Your task to perform on an android device: Open the stopwatch Image 0: 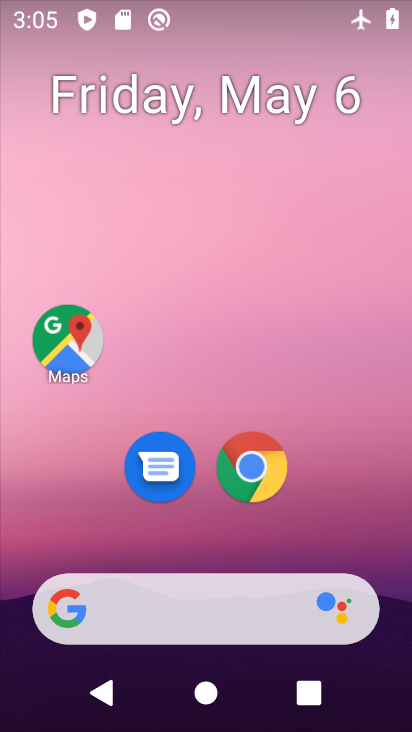
Step 0: click (402, 263)
Your task to perform on an android device: Open the stopwatch Image 1: 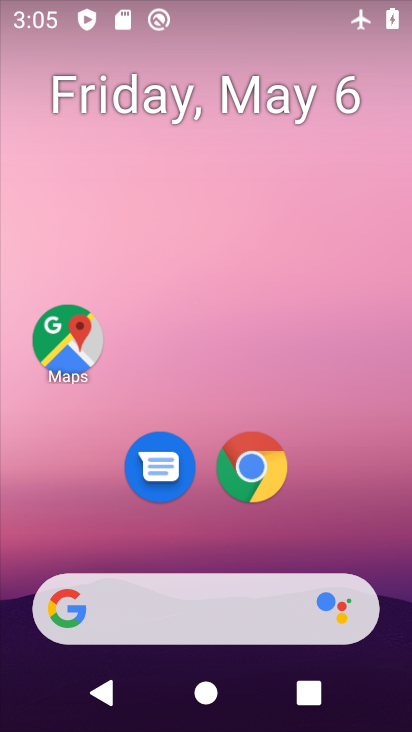
Step 1: drag from (396, 655) to (361, 147)
Your task to perform on an android device: Open the stopwatch Image 2: 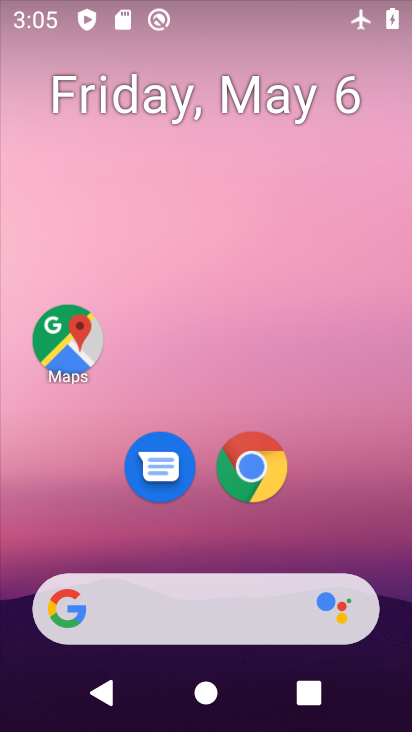
Step 2: drag from (400, 487) to (374, 302)
Your task to perform on an android device: Open the stopwatch Image 3: 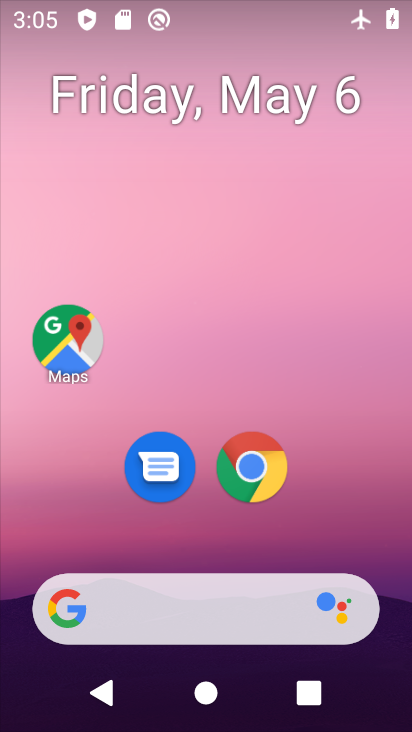
Step 3: drag from (391, 619) to (355, 322)
Your task to perform on an android device: Open the stopwatch Image 4: 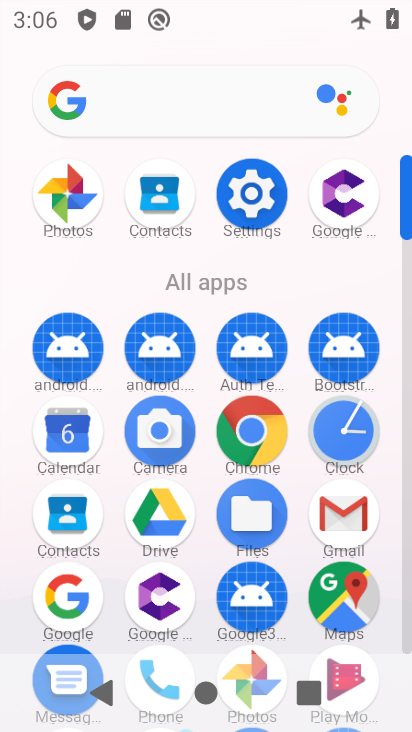
Step 4: click (333, 442)
Your task to perform on an android device: Open the stopwatch Image 5: 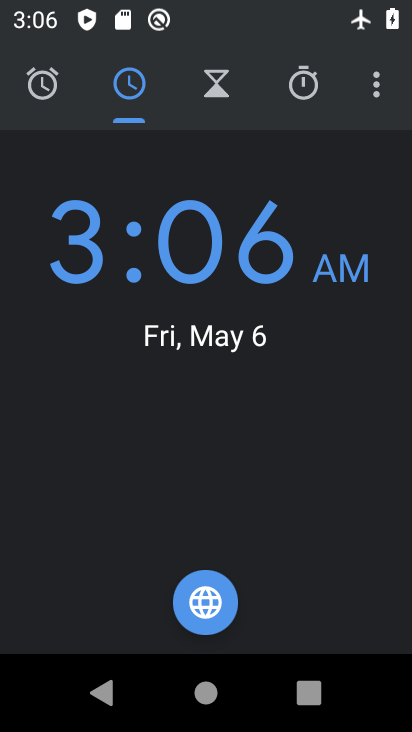
Step 5: click (312, 78)
Your task to perform on an android device: Open the stopwatch Image 6: 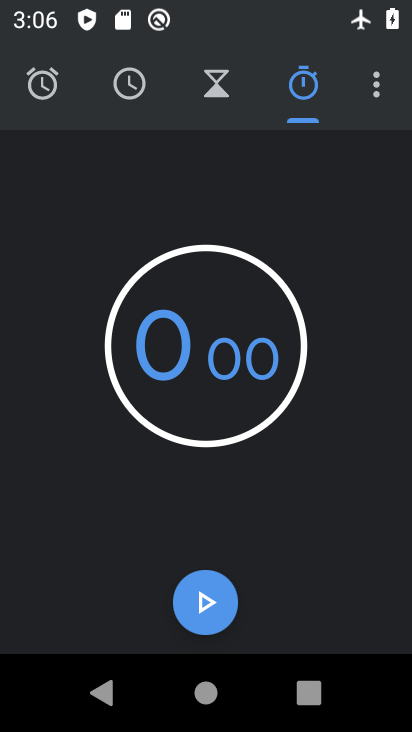
Step 6: click (206, 597)
Your task to perform on an android device: Open the stopwatch Image 7: 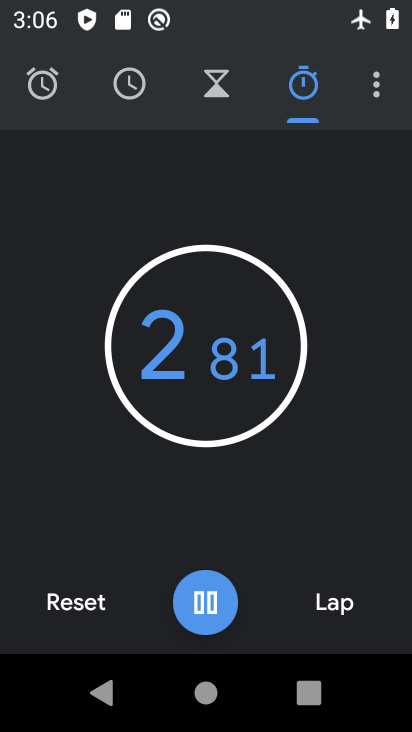
Step 7: task complete